Your task to perform on an android device: stop showing notifications on the lock screen Image 0: 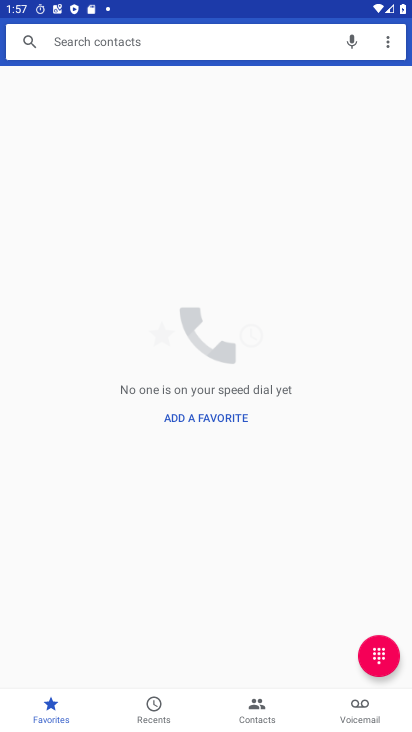
Step 0: press home button
Your task to perform on an android device: stop showing notifications on the lock screen Image 1: 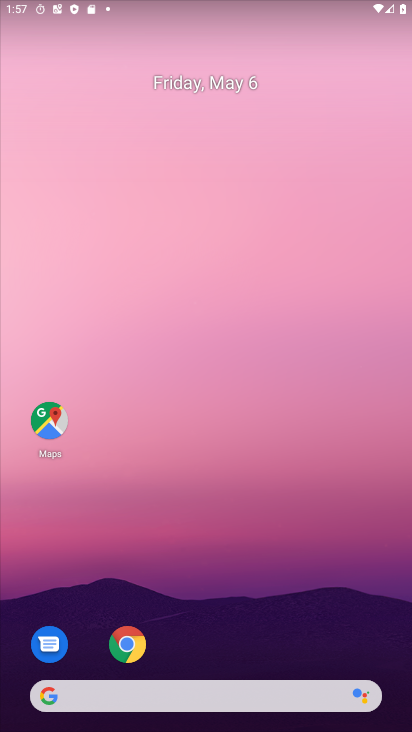
Step 1: drag from (241, 690) to (227, 2)
Your task to perform on an android device: stop showing notifications on the lock screen Image 2: 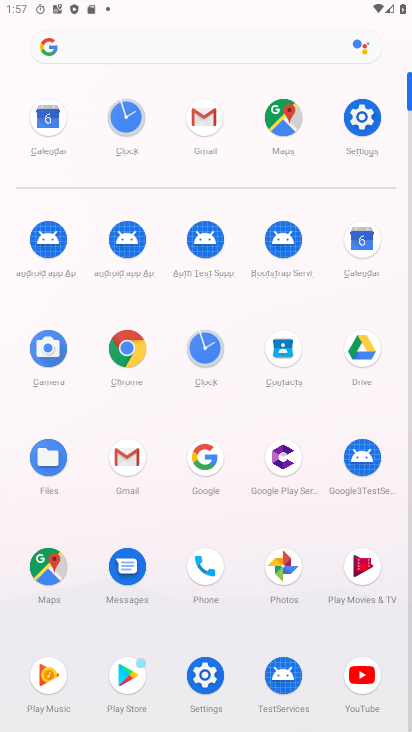
Step 2: click (363, 111)
Your task to perform on an android device: stop showing notifications on the lock screen Image 3: 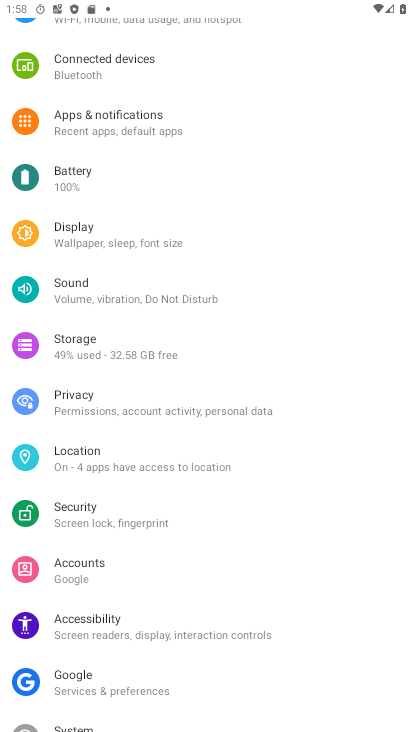
Step 3: click (168, 120)
Your task to perform on an android device: stop showing notifications on the lock screen Image 4: 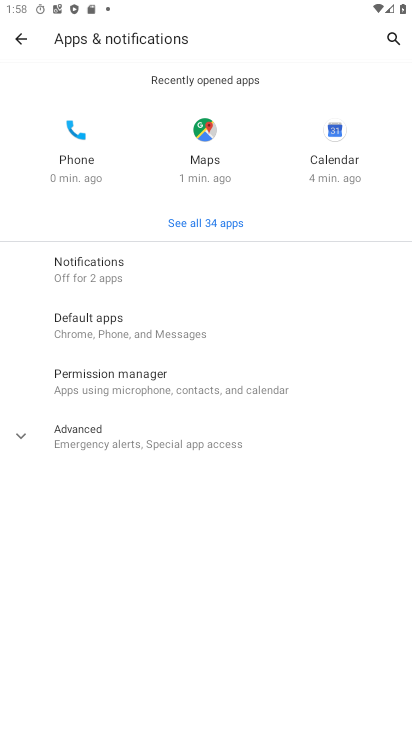
Step 4: click (141, 275)
Your task to perform on an android device: stop showing notifications on the lock screen Image 5: 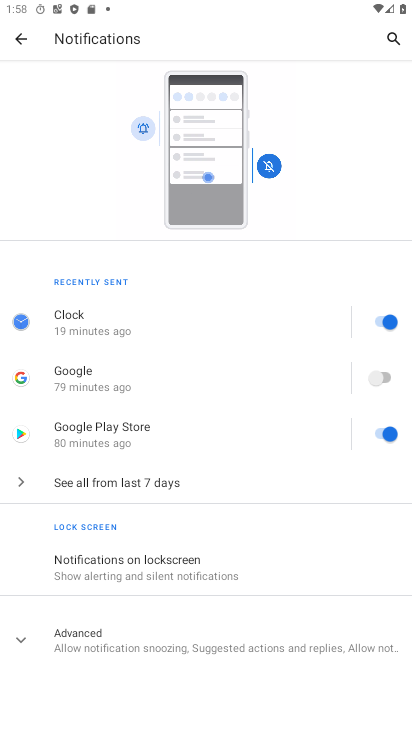
Step 5: click (177, 571)
Your task to perform on an android device: stop showing notifications on the lock screen Image 6: 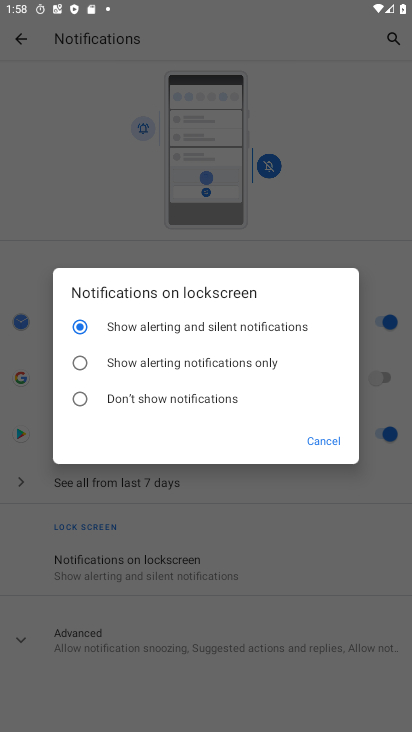
Step 6: click (175, 394)
Your task to perform on an android device: stop showing notifications on the lock screen Image 7: 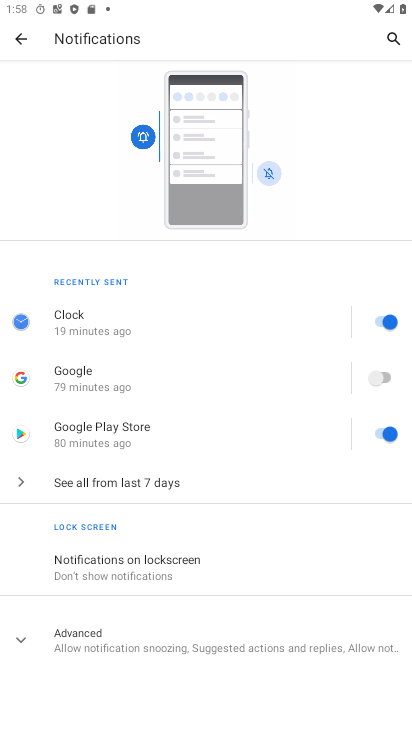
Step 7: task complete